Your task to perform on an android device: Open settings on Google Maps Image 0: 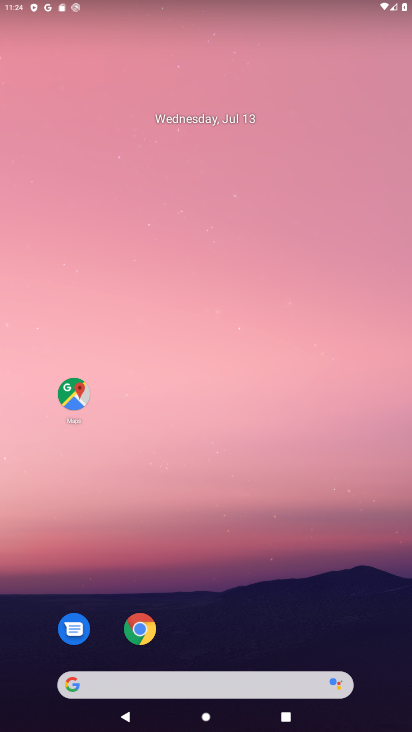
Step 0: click (72, 377)
Your task to perform on an android device: Open settings on Google Maps Image 1: 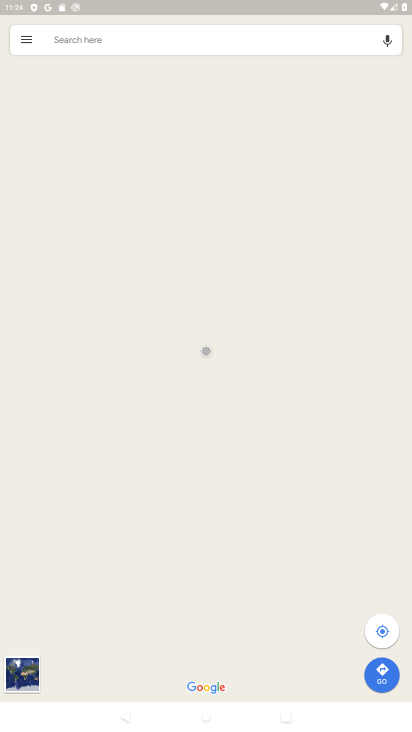
Step 1: click (31, 45)
Your task to perform on an android device: Open settings on Google Maps Image 2: 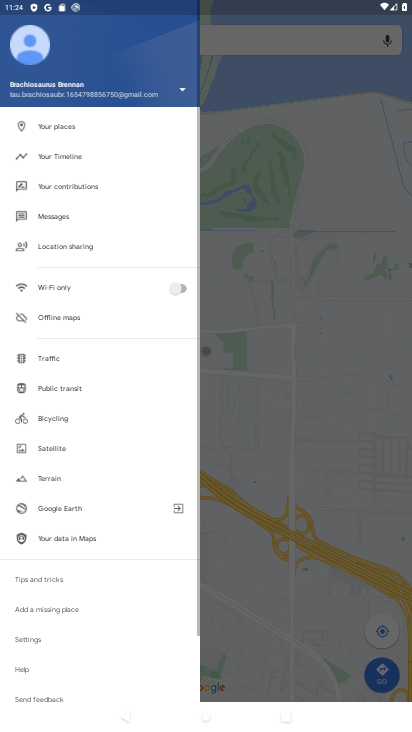
Step 2: click (51, 640)
Your task to perform on an android device: Open settings on Google Maps Image 3: 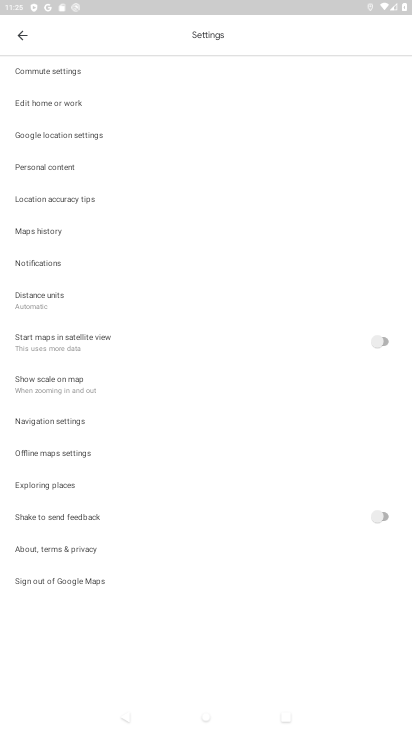
Step 3: task complete